Your task to perform on an android device: Open Google Chrome Image 0: 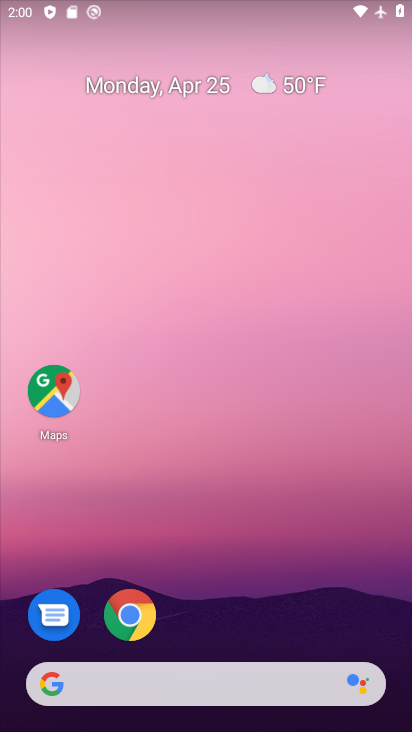
Step 0: click (129, 615)
Your task to perform on an android device: Open Google Chrome Image 1: 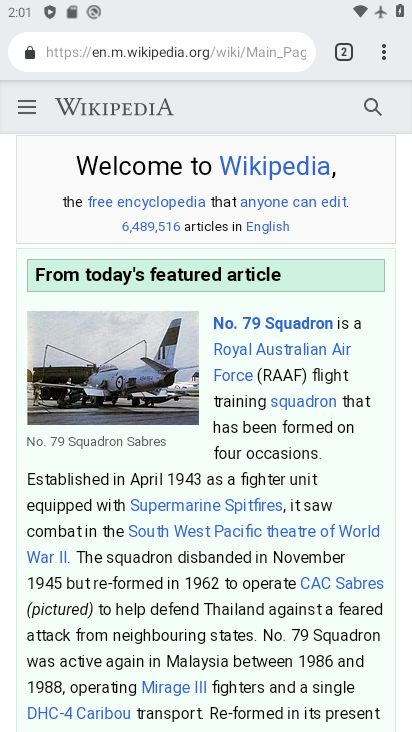
Step 1: task complete